Your task to perform on an android device: delete a single message in the gmail app Image 0: 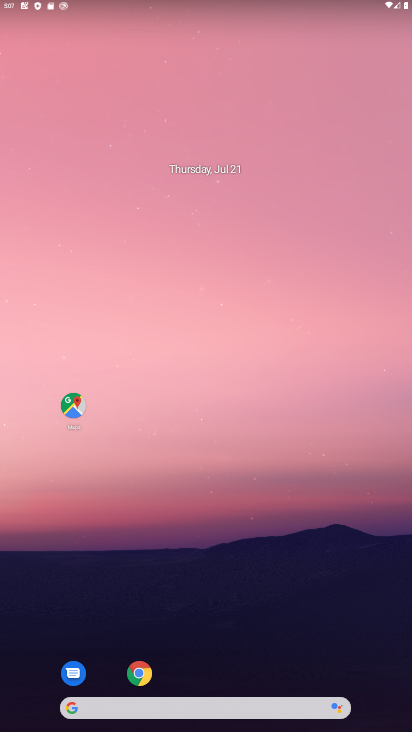
Step 0: drag from (202, 364) to (212, 162)
Your task to perform on an android device: delete a single message in the gmail app Image 1: 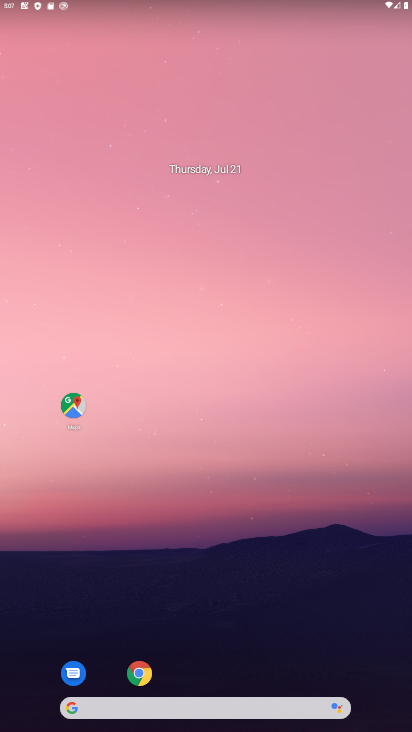
Step 1: drag from (255, 578) to (194, 136)
Your task to perform on an android device: delete a single message in the gmail app Image 2: 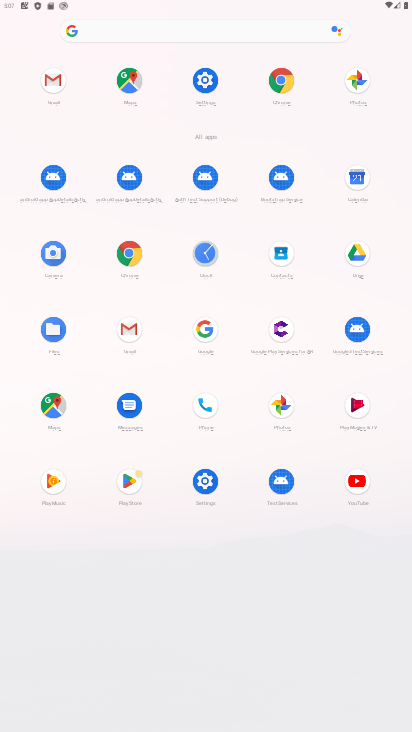
Step 2: click (135, 330)
Your task to perform on an android device: delete a single message in the gmail app Image 3: 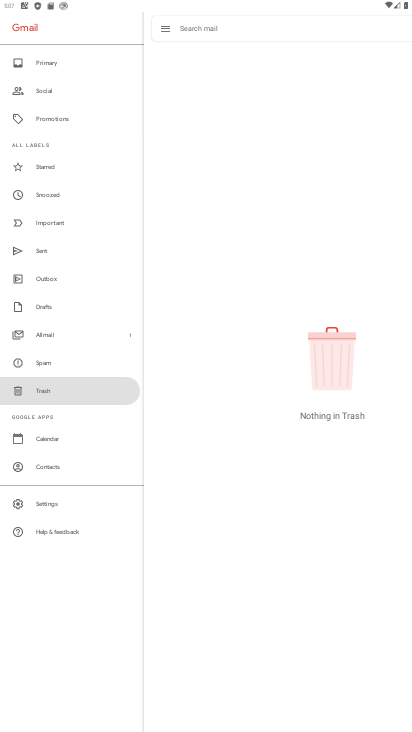
Step 3: click (52, 64)
Your task to perform on an android device: delete a single message in the gmail app Image 4: 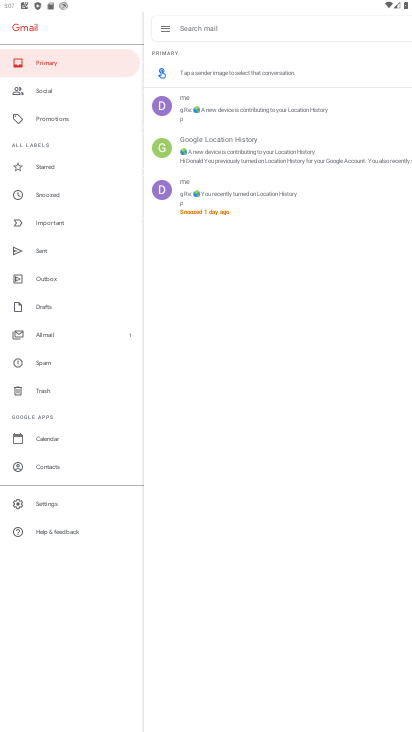
Step 4: click (162, 107)
Your task to perform on an android device: delete a single message in the gmail app Image 5: 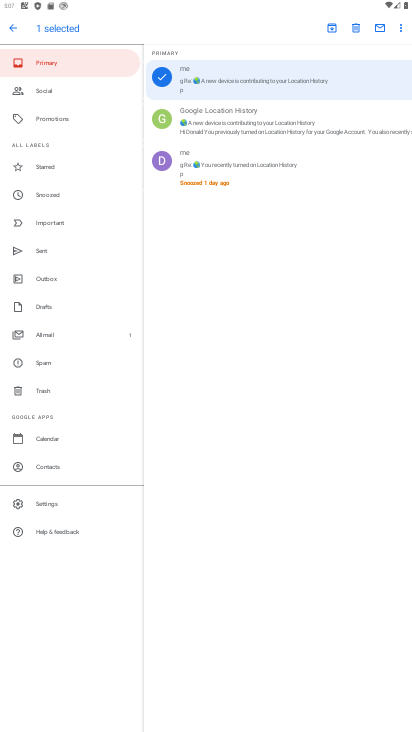
Step 5: click (358, 26)
Your task to perform on an android device: delete a single message in the gmail app Image 6: 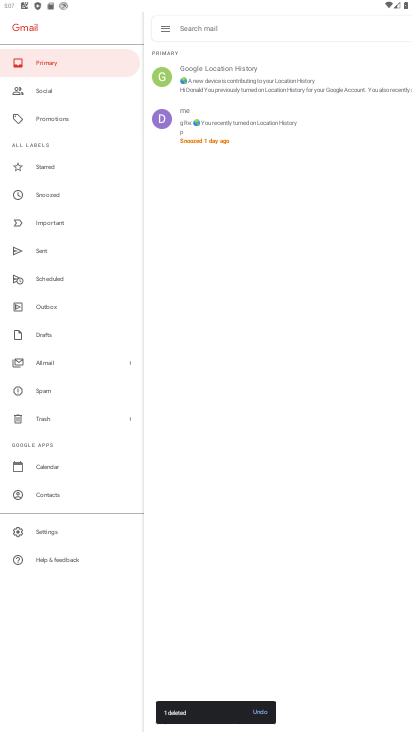
Step 6: task complete